Your task to perform on an android device: turn on sleep mode Image 0: 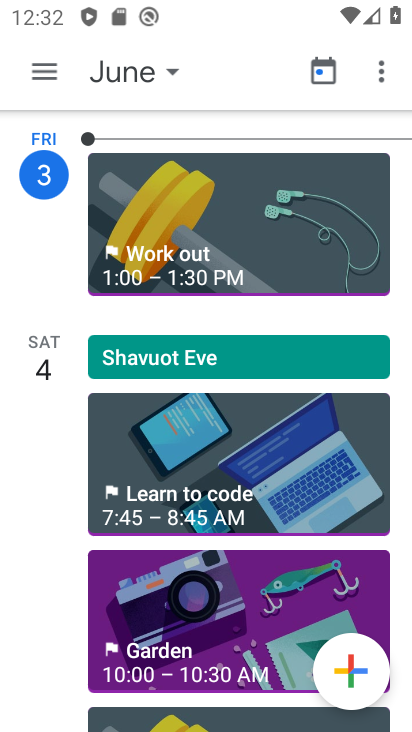
Step 0: task complete